Your task to perform on an android device: Open Google Chrome Image 0: 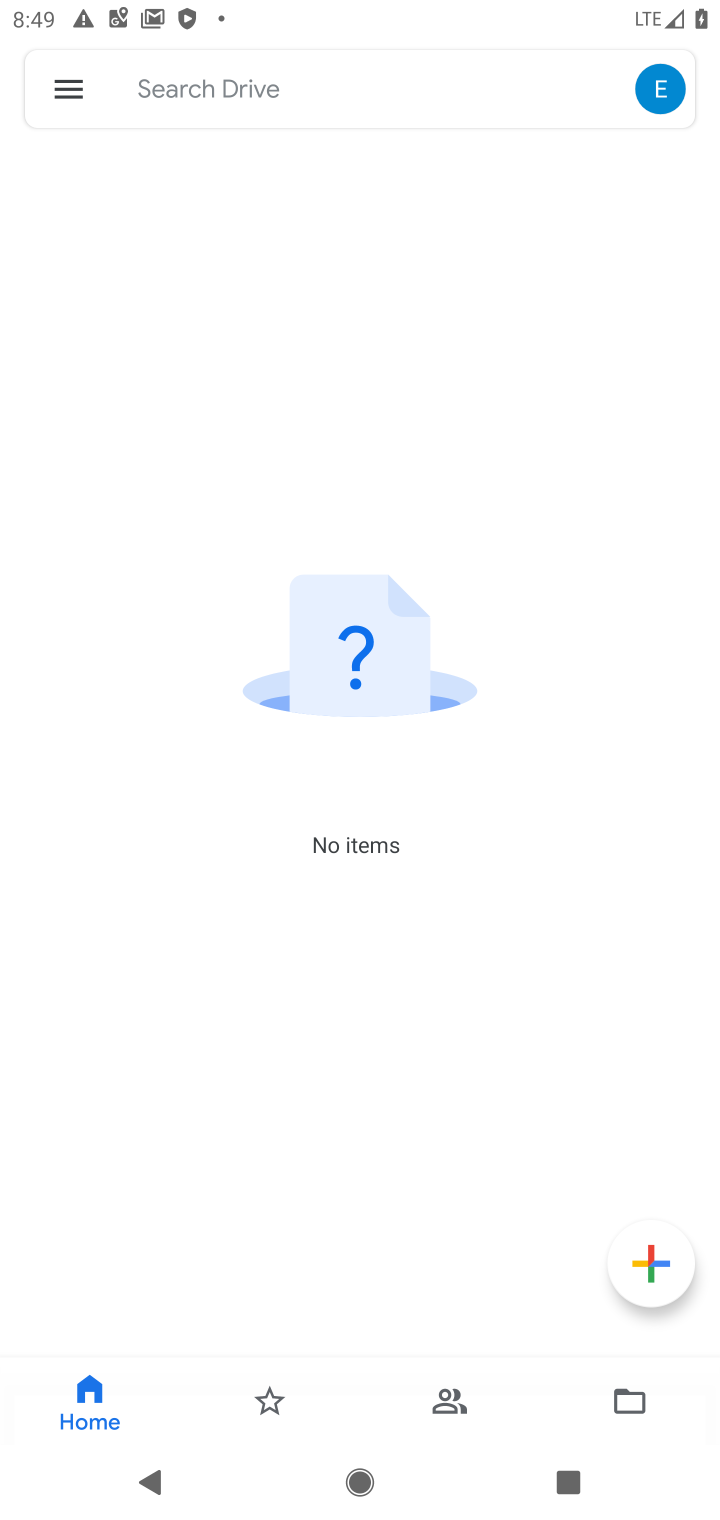
Step 0: press home button
Your task to perform on an android device: Open Google Chrome Image 1: 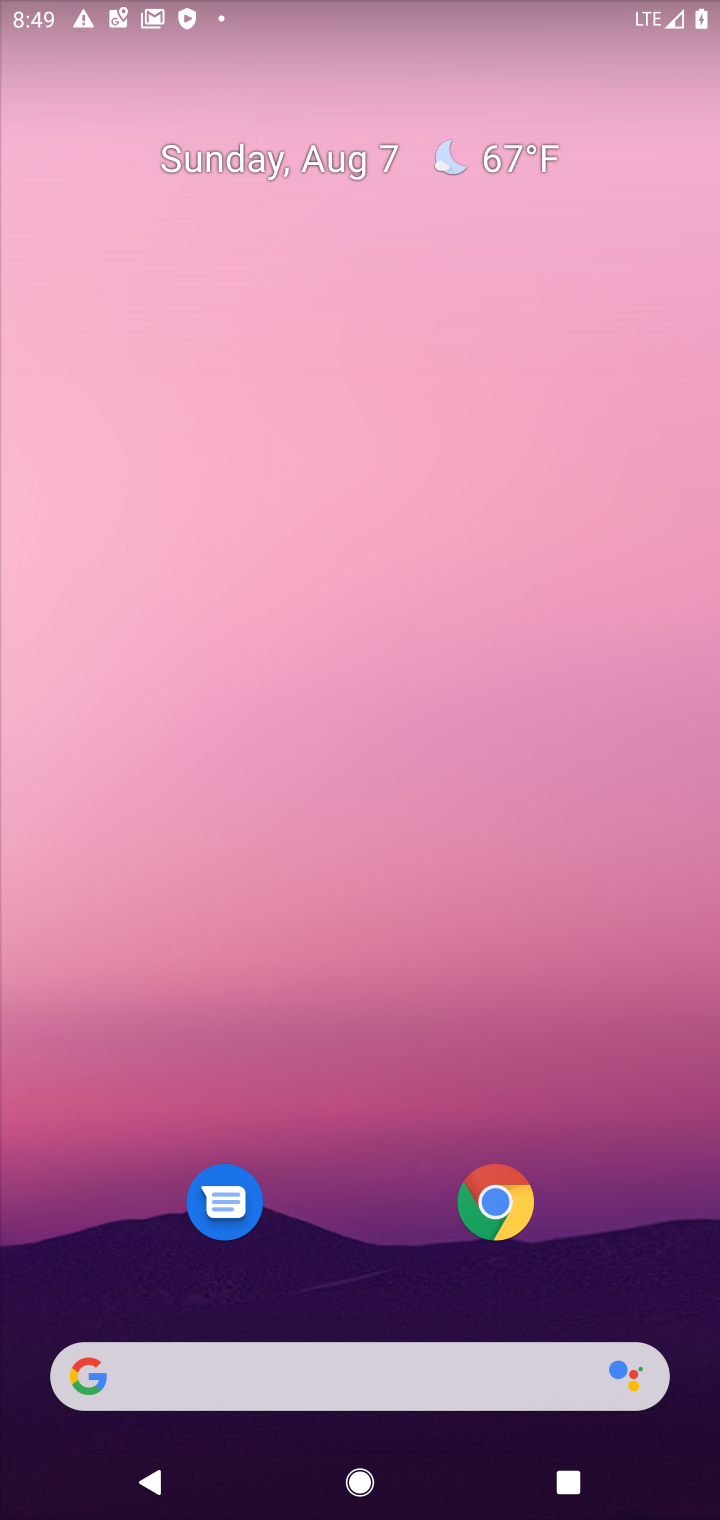
Step 1: click (517, 1209)
Your task to perform on an android device: Open Google Chrome Image 2: 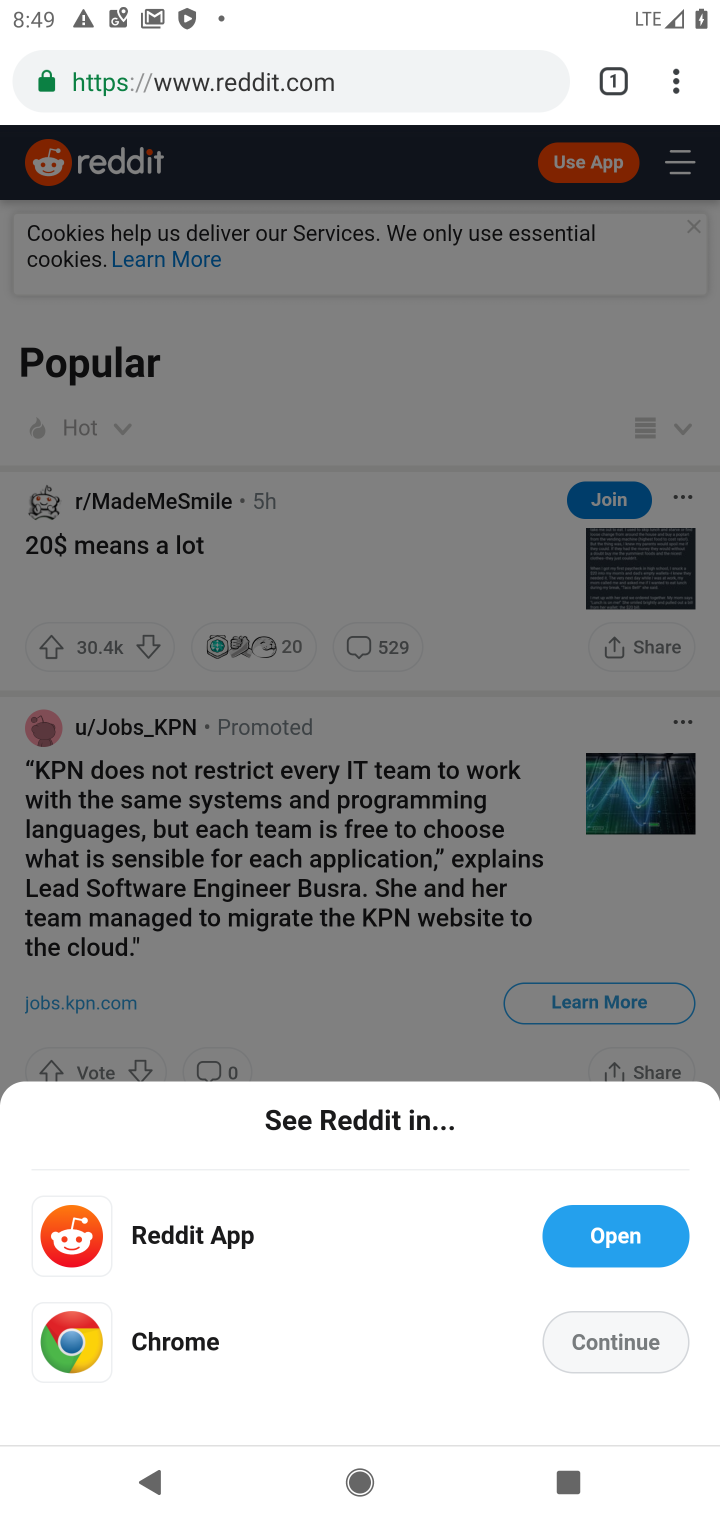
Step 2: task complete